Your task to perform on an android device: Play the last video I watched on Youtube Image 0: 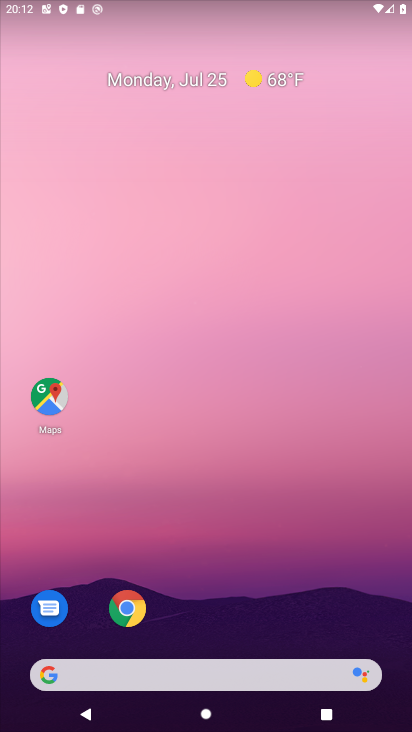
Step 0: drag from (259, 647) to (269, 85)
Your task to perform on an android device: Play the last video I watched on Youtube Image 1: 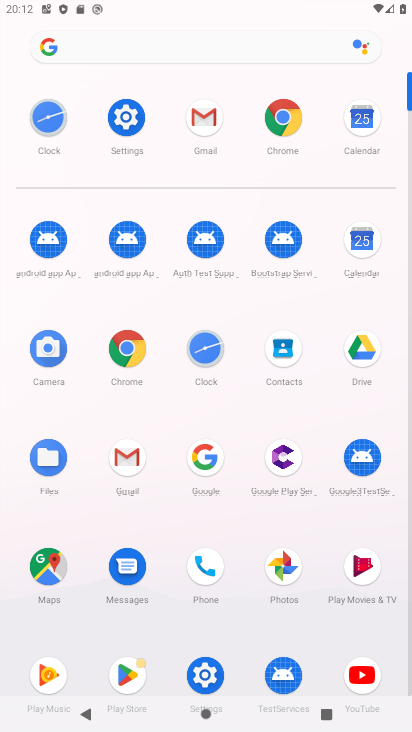
Step 1: click (358, 676)
Your task to perform on an android device: Play the last video I watched on Youtube Image 2: 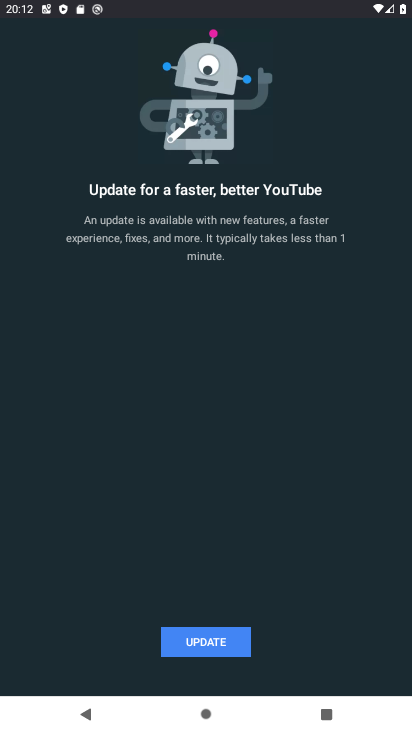
Step 2: click (219, 631)
Your task to perform on an android device: Play the last video I watched on Youtube Image 3: 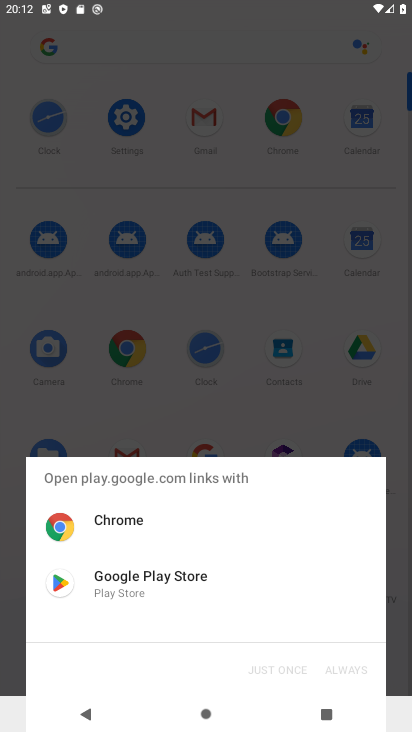
Step 3: click (101, 596)
Your task to perform on an android device: Play the last video I watched on Youtube Image 4: 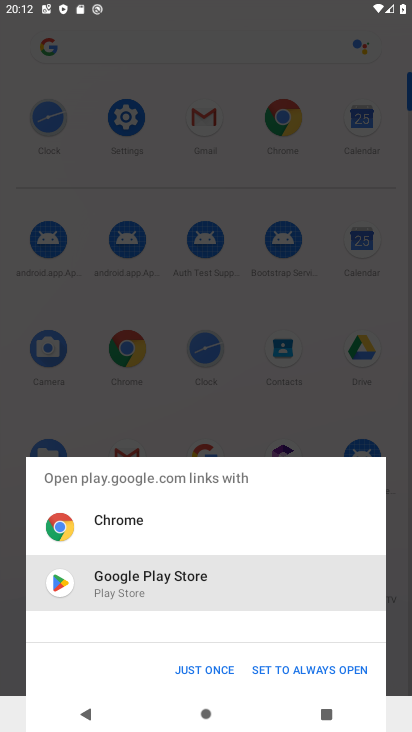
Step 4: click (217, 674)
Your task to perform on an android device: Play the last video I watched on Youtube Image 5: 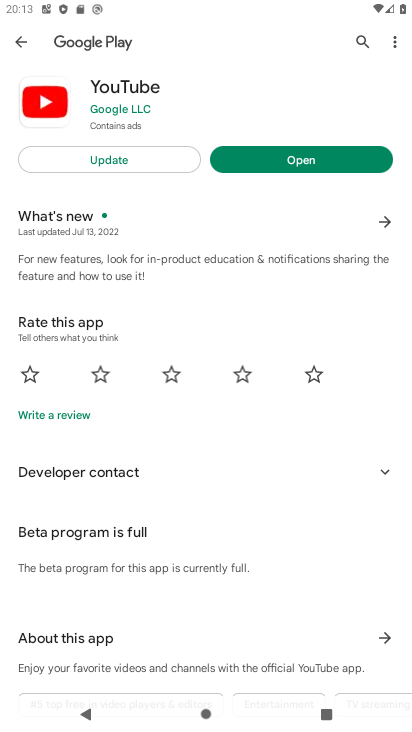
Step 5: click (121, 152)
Your task to perform on an android device: Play the last video I watched on Youtube Image 6: 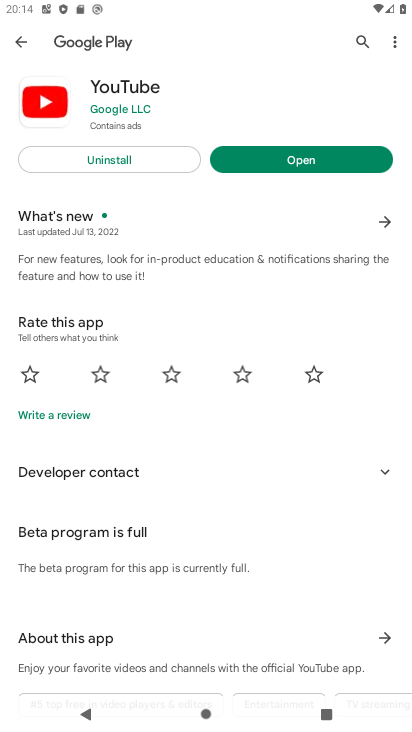
Step 6: click (234, 156)
Your task to perform on an android device: Play the last video I watched on Youtube Image 7: 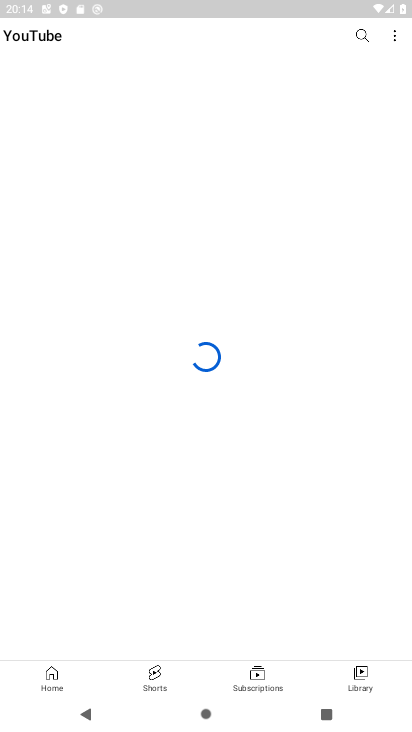
Step 7: click (360, 675)
Your task to perform on an android device: Play the last video I watched on Youtube Image 8: 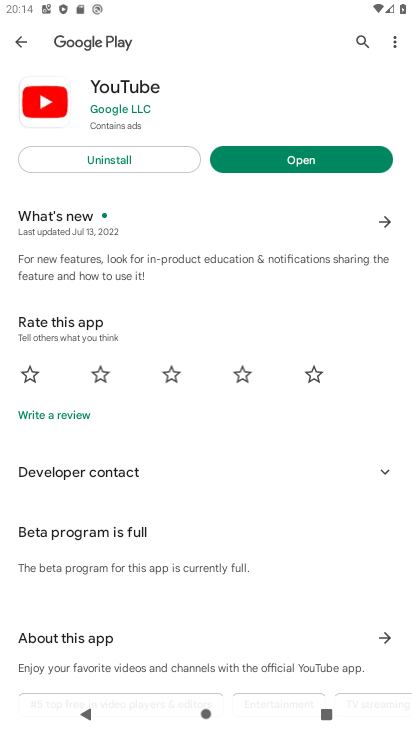
Step 8: click (271, 158)
Your task to perform on an android device: Play the last video I watched on Youtube Image 9: 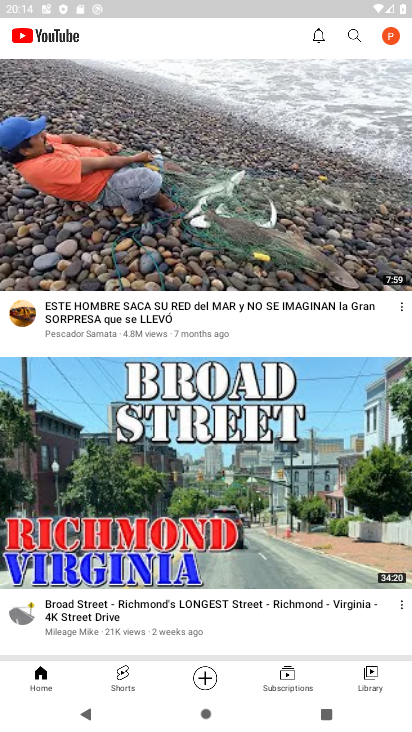
Step 9: click (360, 668)
Your task to perform on an android device: Play the last video I watched on Youtube Image 10: 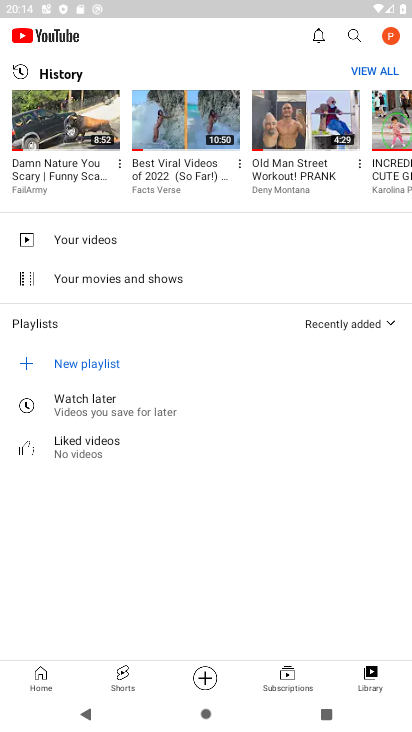
Step 10: click (27, 124)
Your task to perform on an android device: Play the last video I watched on Youtube Image 11: 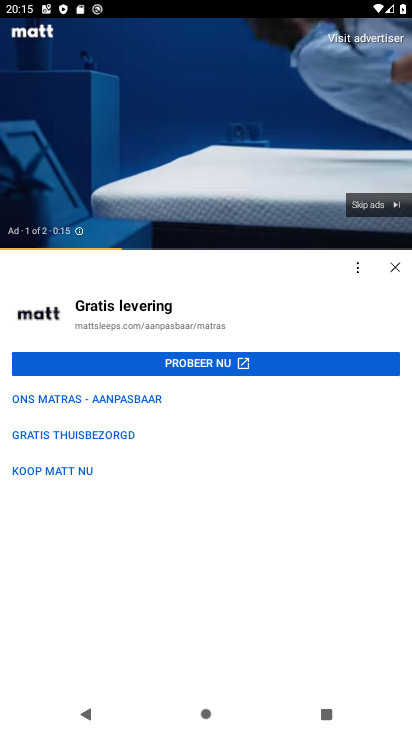
Step 11: click (387, 206)
Your task to perform on an android device: Play the last video I watched on Youtube Image 12: 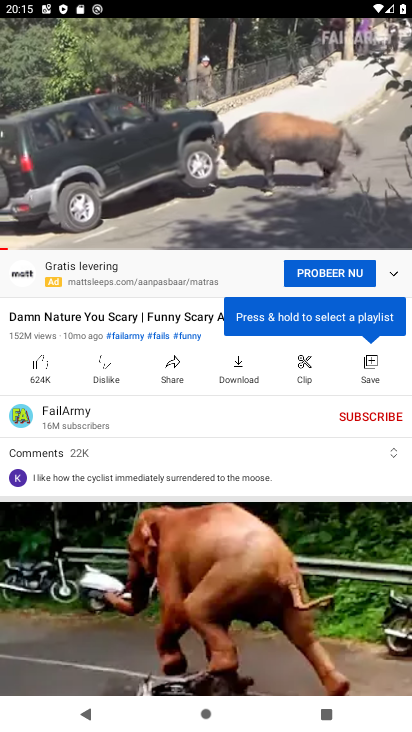
Step 12: click (230, 155)
Your task to perform on an android device: Play the last video I watched on Youtube Image 13: 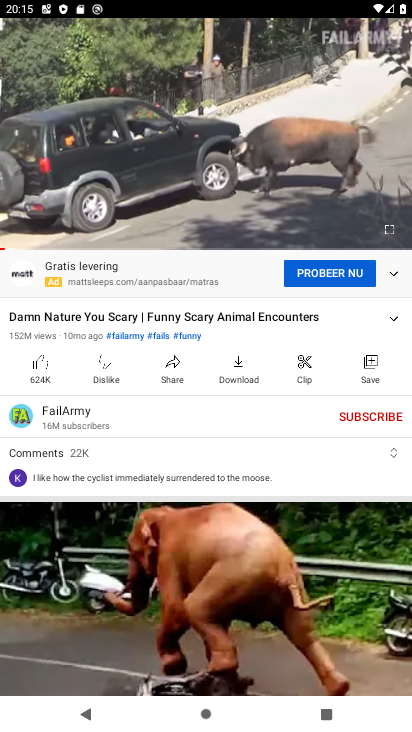
Step 13: click (210, 148)
Your task to perform on an android device: Play the last video I watched on Youtube Image 14: 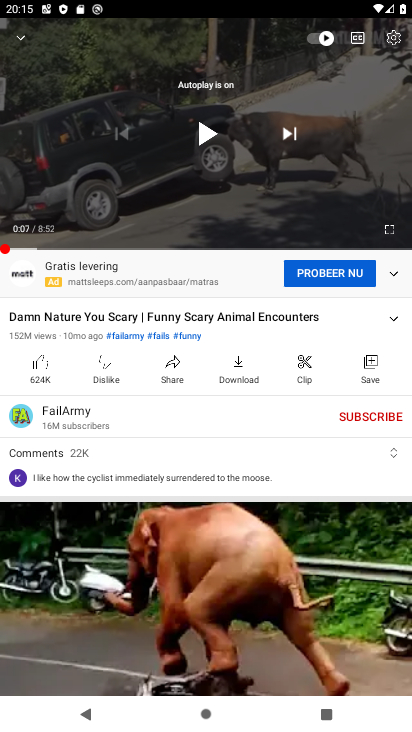
Step 14: click (206, 140)
Your task to perform on an android device: Play the last video I watched on Youtube Image 15: 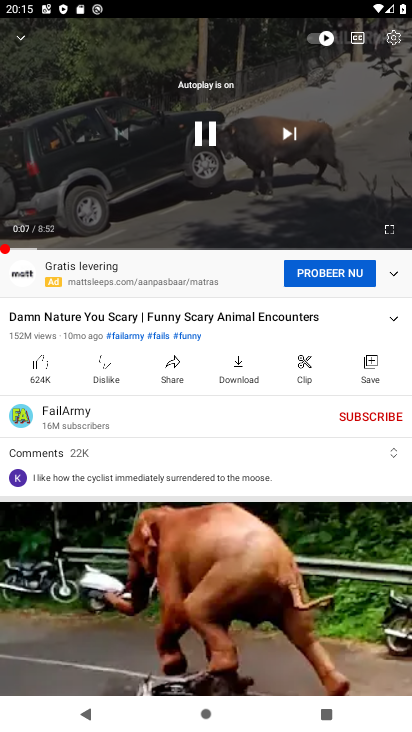
Step 15: click (206, 140)
Your task to perform on an android device: Play the last video I watched on Youtube Image 16: 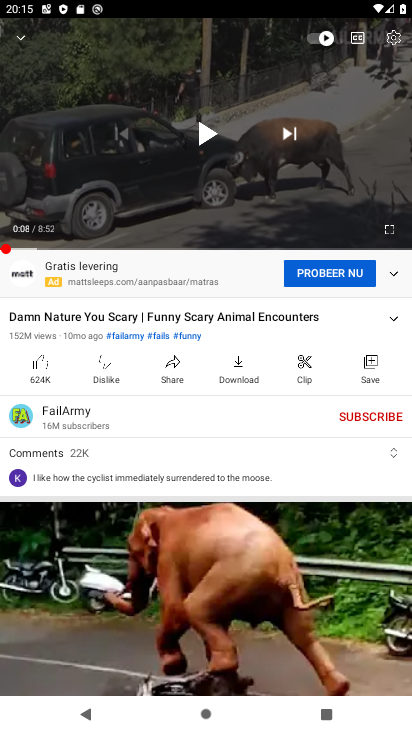
Step 16: task complete